Your task to perform on an android device: Open the web browser Image 0: 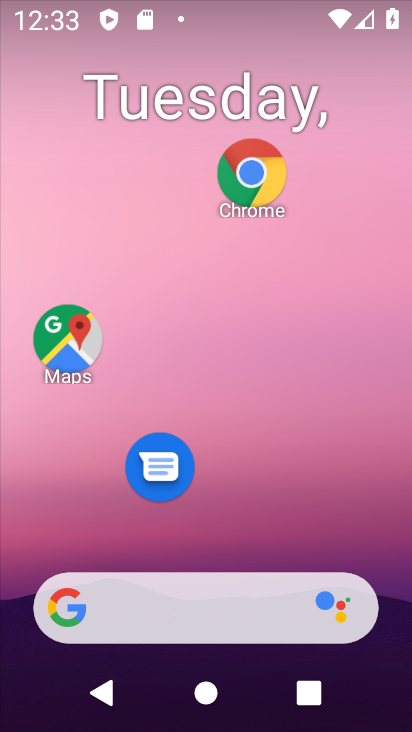
Step 0: drag from (311, 569) to (332, 196)
Your task to perform on an android device: Open the web browser Image 1: 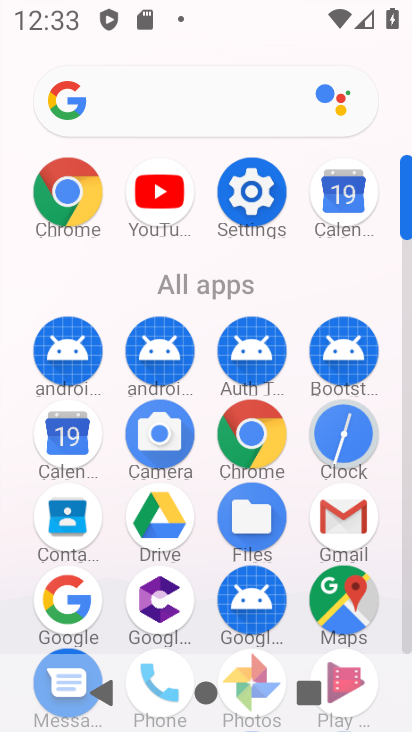
Step 1: click (262, 424)
Your task to perform on an android device: Open the web browser Image 2: 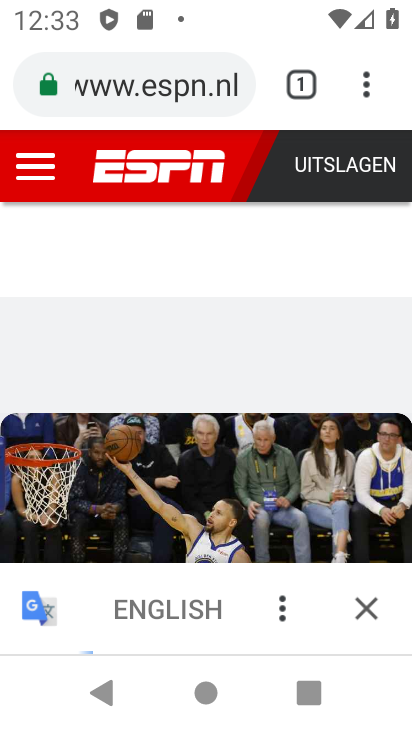
Step 2: task complete